Your task to perform on an android device: turn on wifi Image 0: 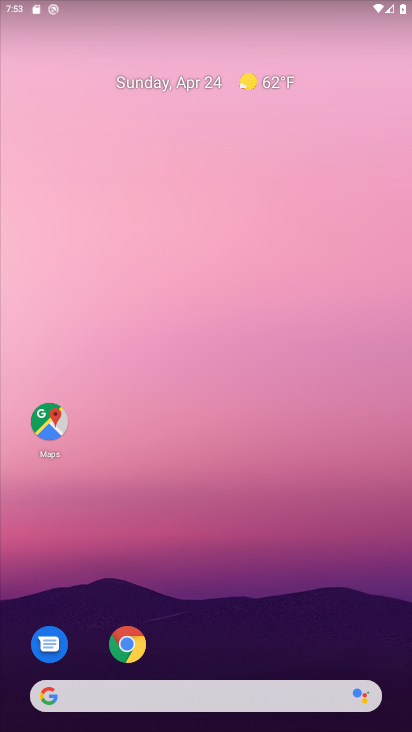
Step 0: drag from (221, 624) to (263, 206)
Your task to perform on an android device: turn on wifi Image 1: 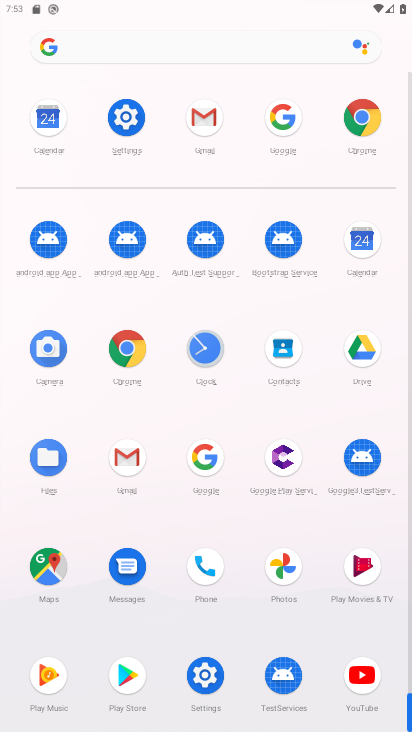
Step 1: click (122, 110)
Your task to perform on an android device: turn on wifi Image 2: 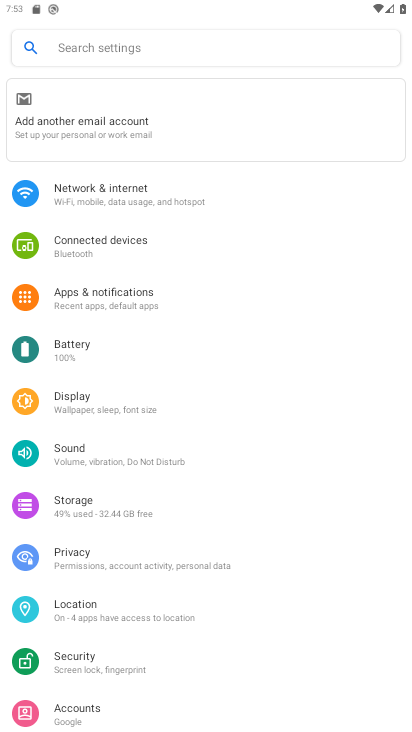
Step 2: click (159, 189)
Your task to perform on an android device: turn on wifi Image 3: 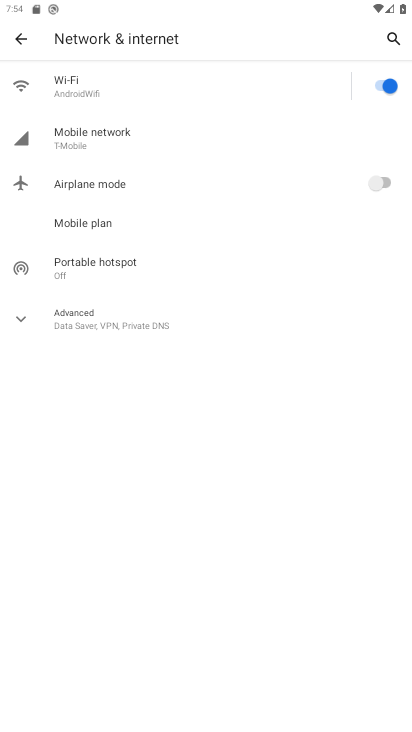
Step 3: task complete